Your task to perform on an android device: turn off location history Image 0: 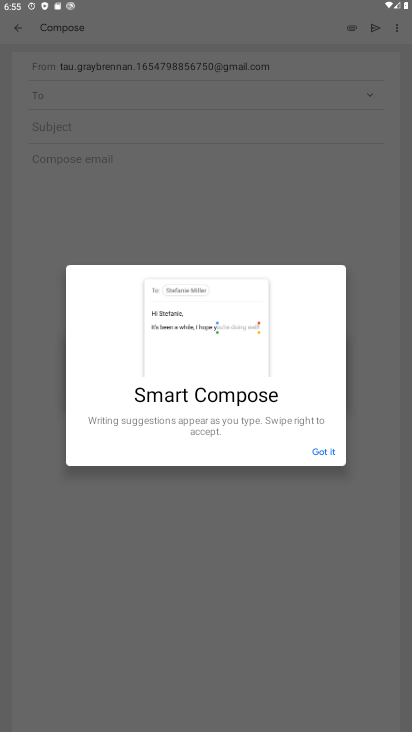
Step 0: press home button
Your task to perform on an android device: turn off location history Image 1: 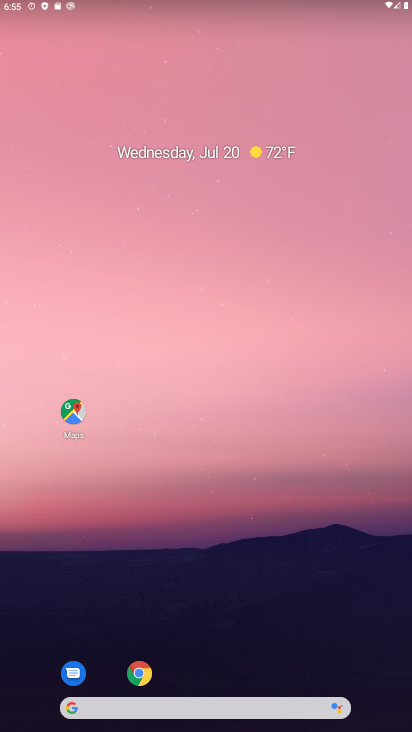
Step 1: drag from (367, 673) to (185, 78)
Your task to perform on an android device: turn off location history Image 2: 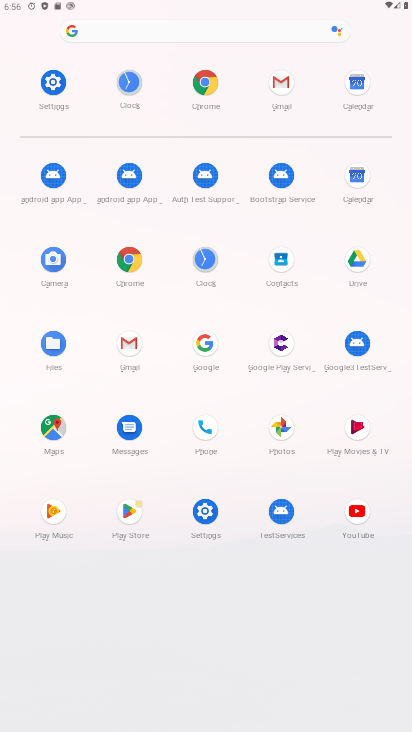
Step 2: click (208, 517)
Your task to perform on an android device: turn off location history Image 3: 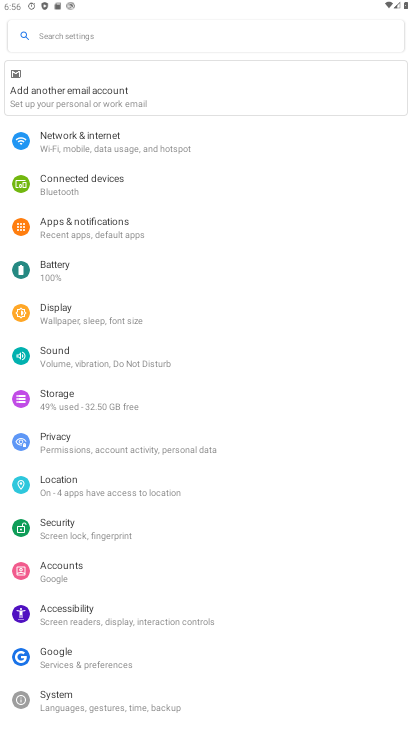
Step 3: click (63, 495)
Your task to perform on an android device: turn off location history Image 4: 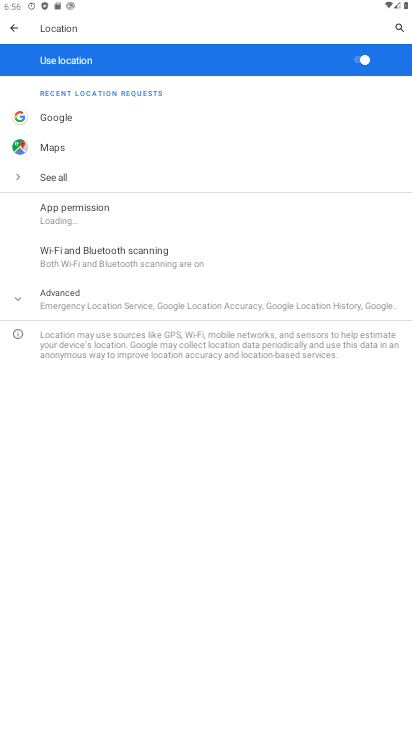
Step 4: click (65, 302)
Your task to perform on an android device: turn off location history Image 5: 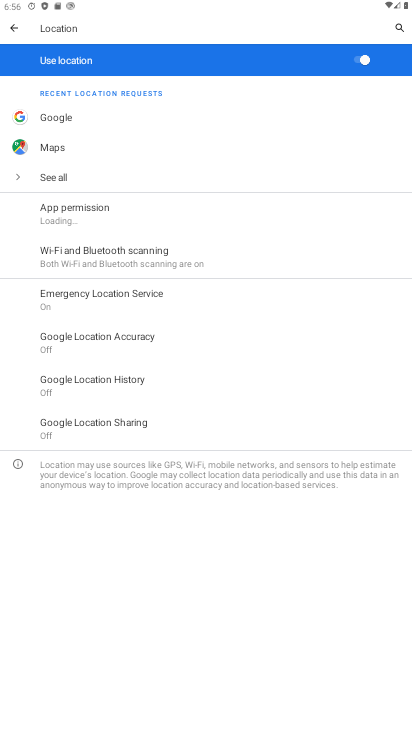
Step 5: click (108, 386)
Your task to perform on an android device: turn off location history Image 6: 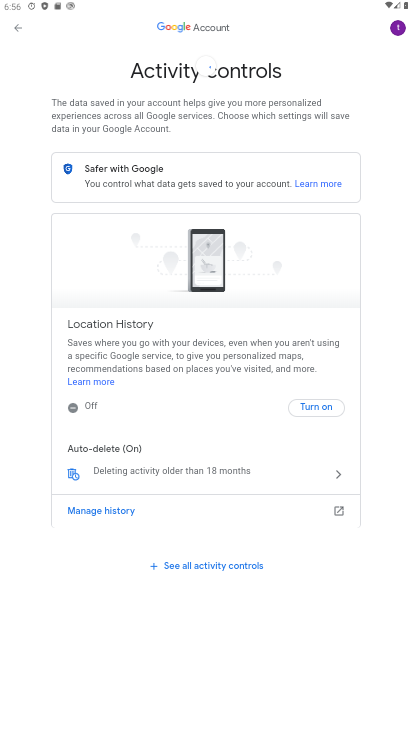
Step 6: click (313, 408)
Your task to perform on an android device: turn off location history Image 7: 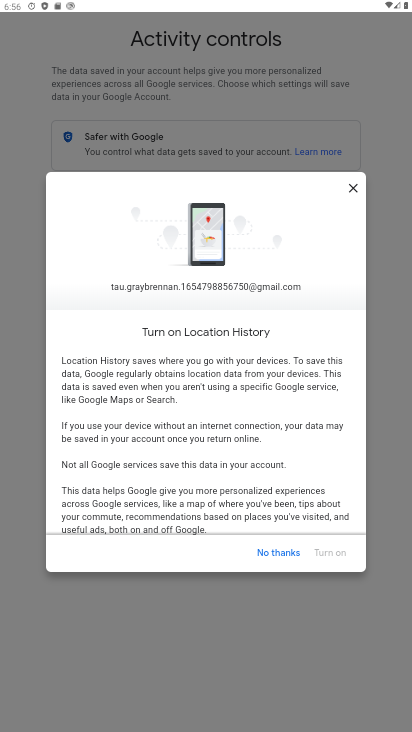
Step 7: task complete